Your task to perform on an android device: Go to Amazon Image 0: 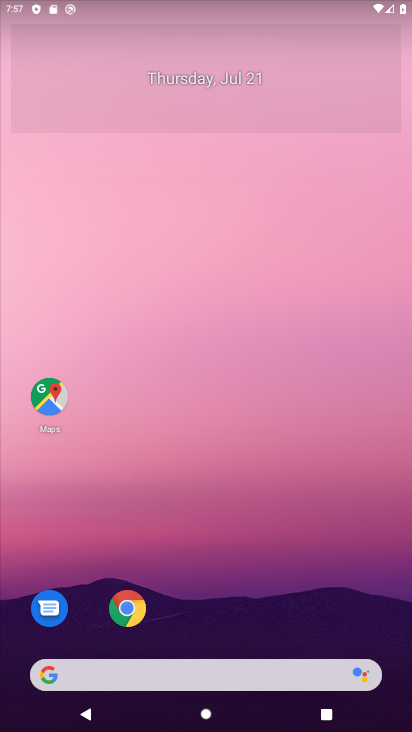
Step 0: click (105, 677)
Your task to perform on an android device: Go to Amazon Image 1: 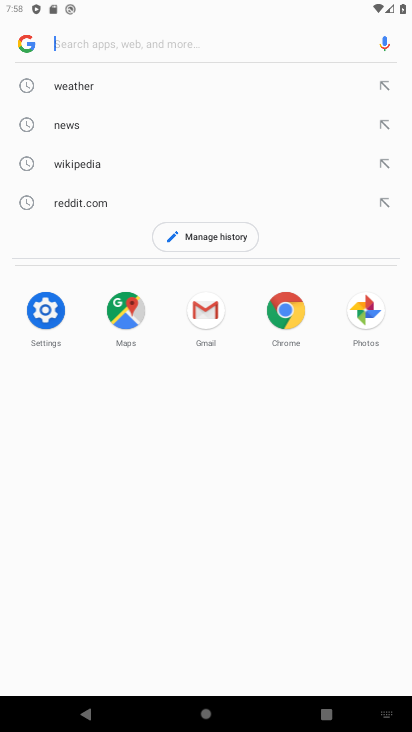
Step 1: click (301, 468)
Your task to perform on an android device: Go to Amazon Image 2: 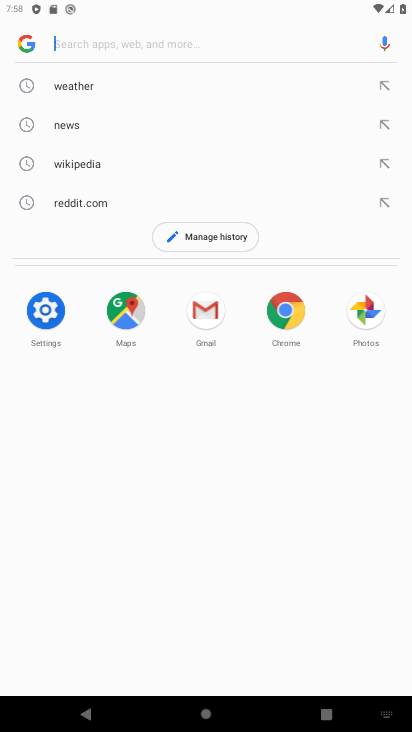
Step 2: click (294, 497)
Your task to perform on an android device: Go to Amazon Image 3: 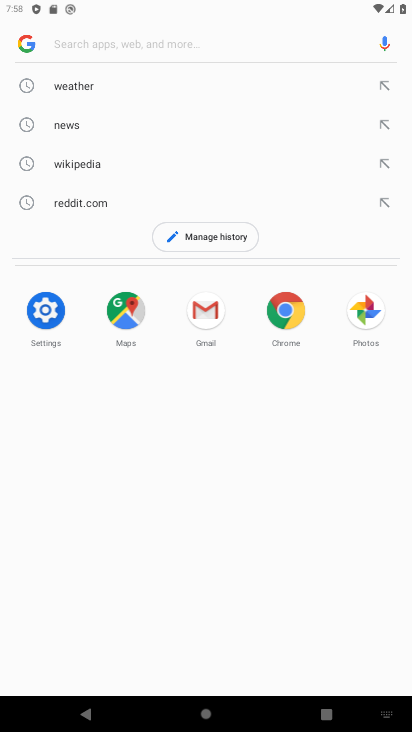
Step 3: type "Amazon"
Your task to perform on an android device: Go to Amazon Image 4: 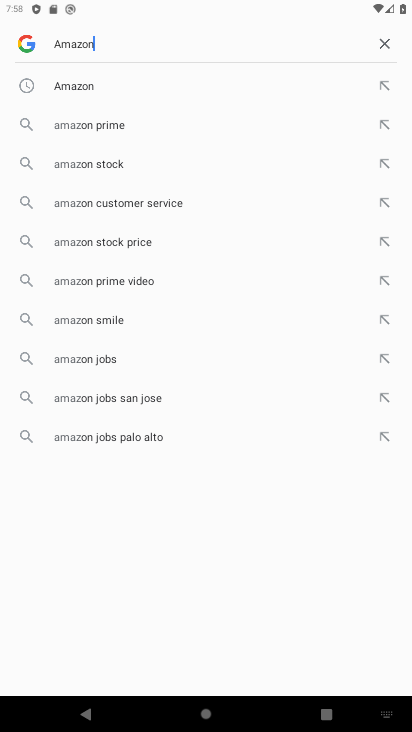
Step 4: type ""
Your task to perform on an android device: Go to Amazon Image 5: 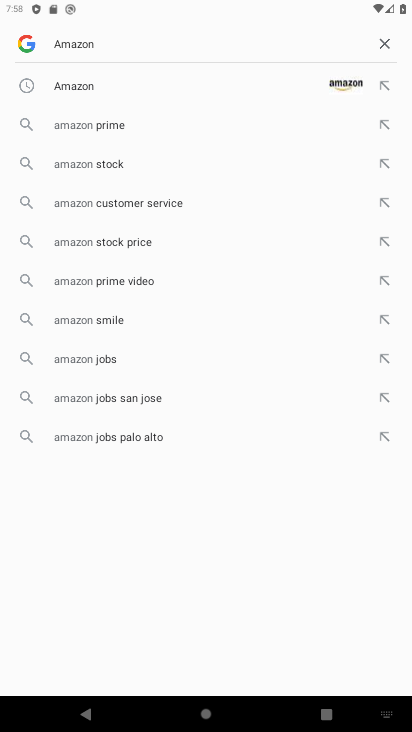
Step 5: click (58, 85)
Your task to perform on an android device: Go to Amazon Image 6: 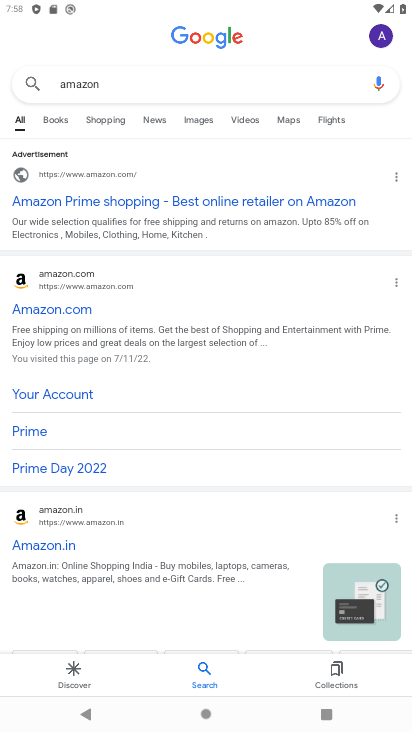
Step 6: task complete